Your task to perform on an android device: change the clock display to digital Image 0: 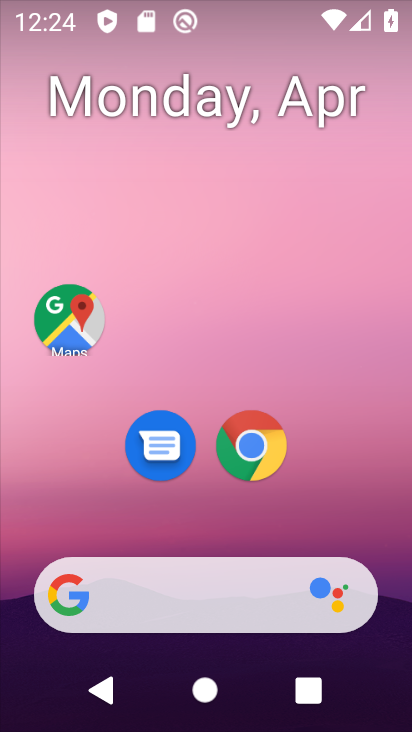
Step 0: drag from (337, 477) to (342, 109)
Your task to perform on an android device: change the clock display to digital Image 1: 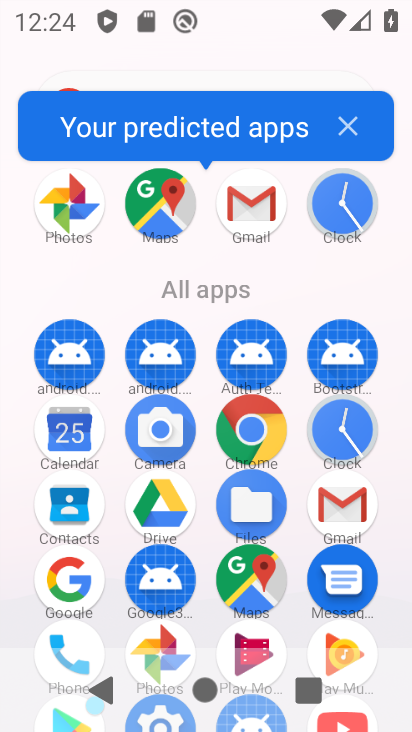
Step 1: click (356, 436)
Your task to perform on an android device: change the clock display to digital Image 2: 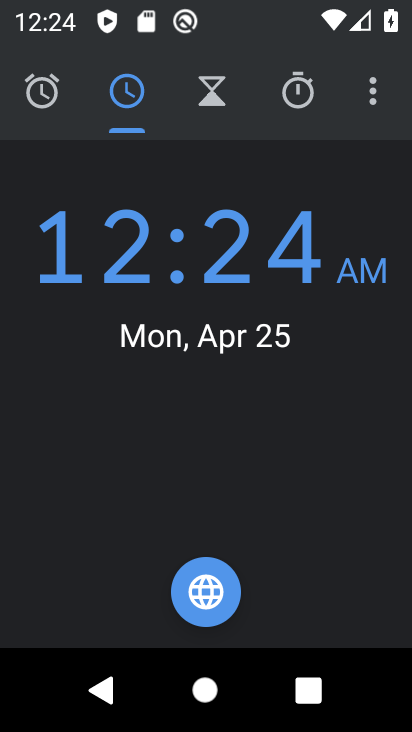
Step 2: click (375, 100)
Your task to perform on an android device: change the clock display to digital Image 3: 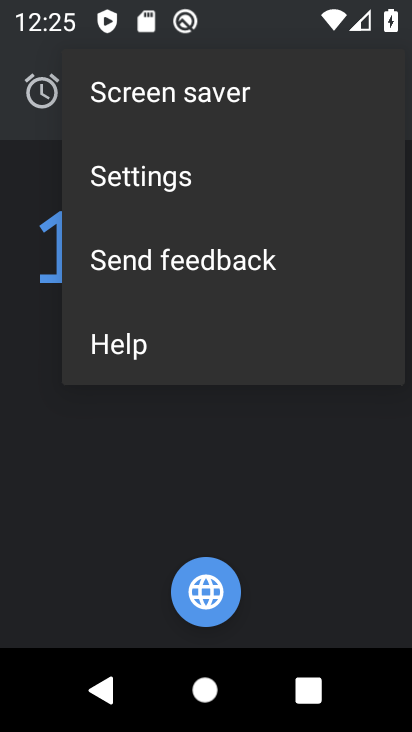
Step 3: click (203, 167)
Your task to perform on an android device: change the clock display to digital Image 4: 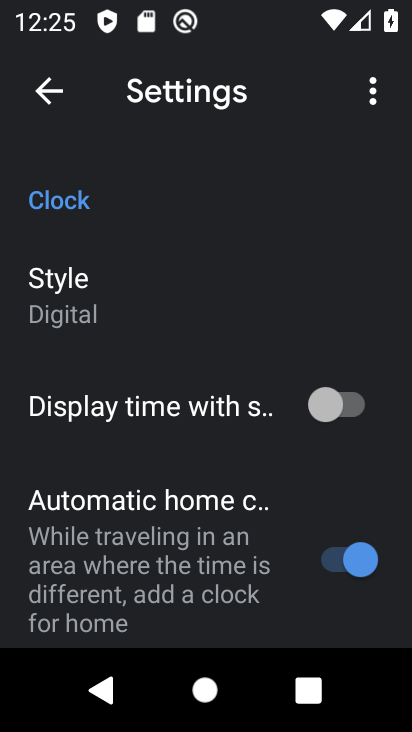
Step 4: task complete